Your task to perform on an android device: Is it going to rain this weekend? Image 0: 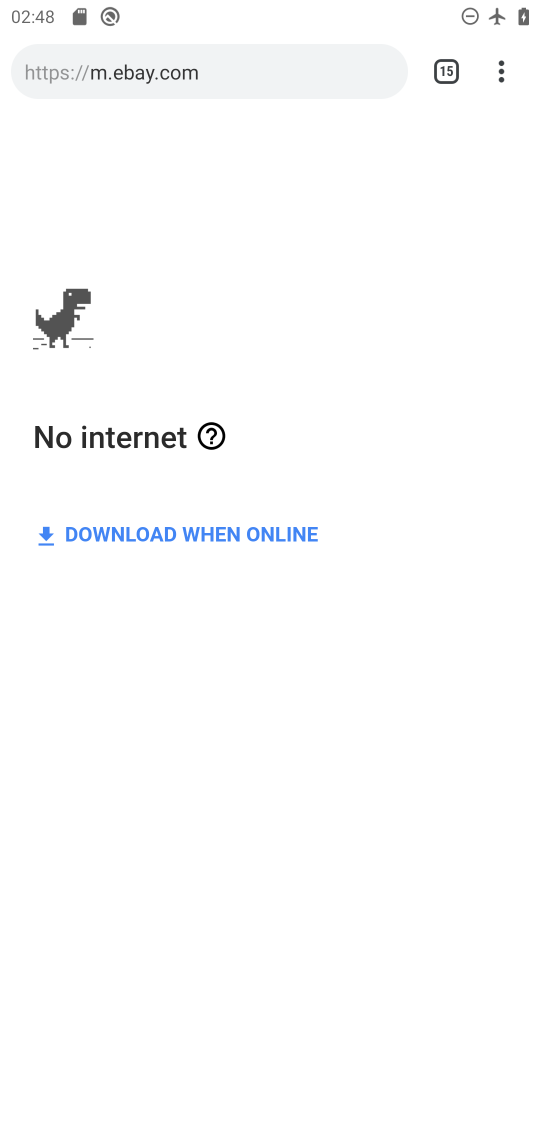
Step 0: press back button
Your task to perform on an android device: Is it going to rain this weekend? Image 1: 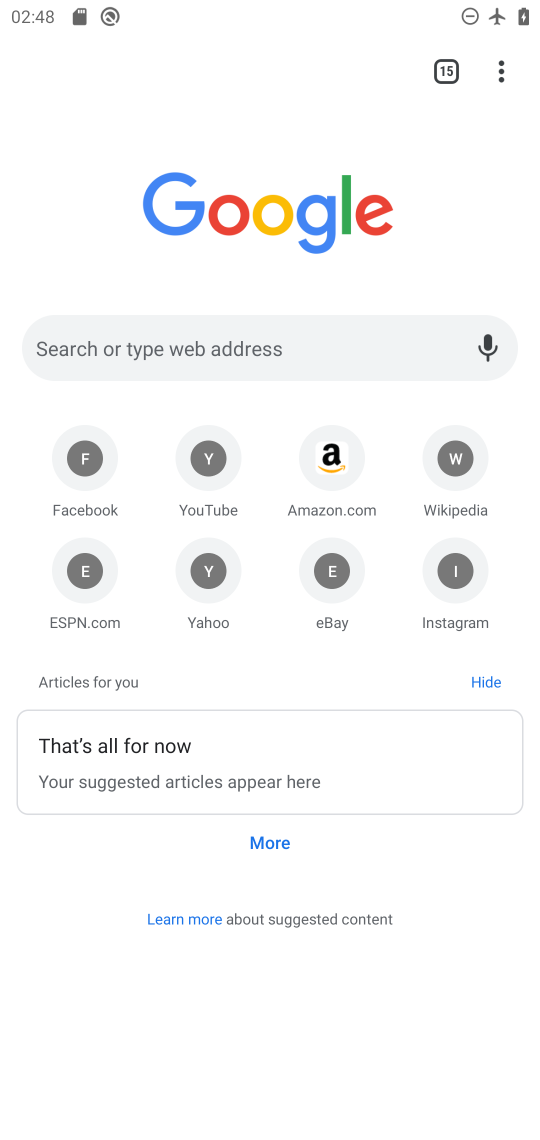
Step 1: press home button
Your task to perform on an android device: Is it going to rain this weekend? Image 2: 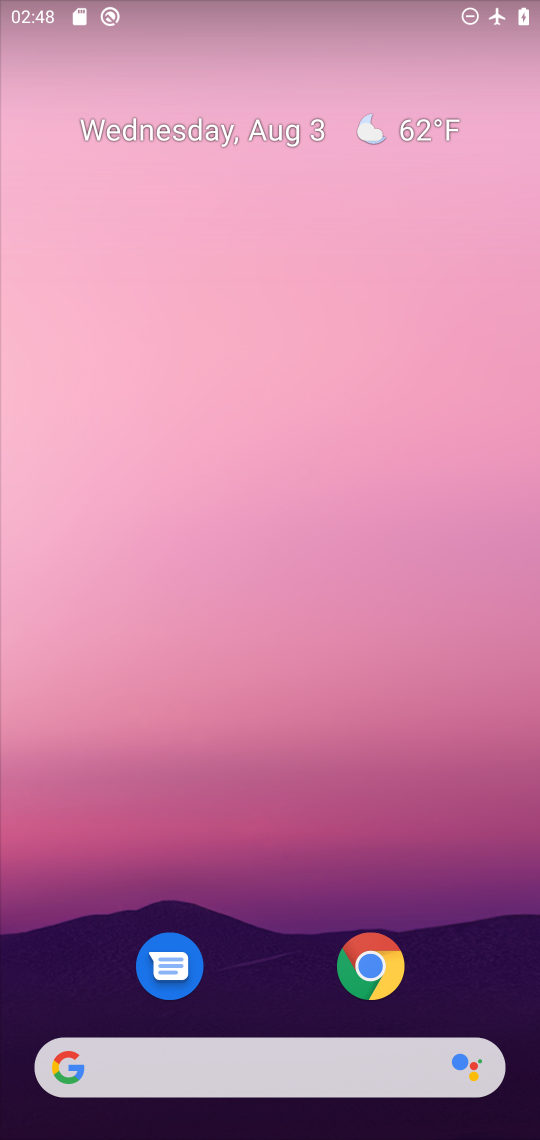
Step 2: drag from (250, 965) to (271, 308)
Your task to perform on an android device: Is it going to rain this weekend? Image 3: 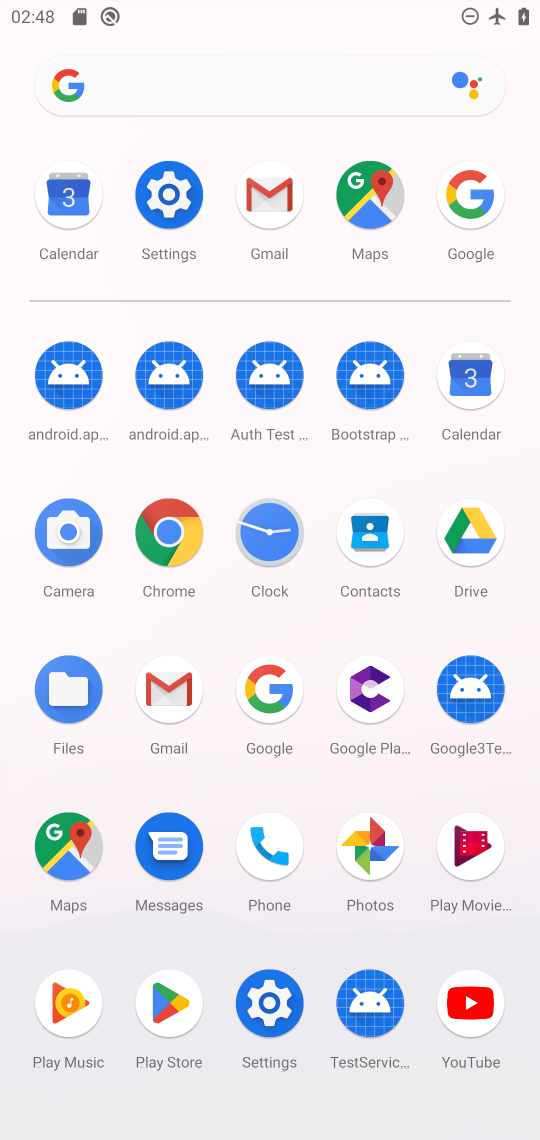
Step 3: click (459, 227)
Your task to perform on an android device: Is it going to rain this weekend? Image 4: 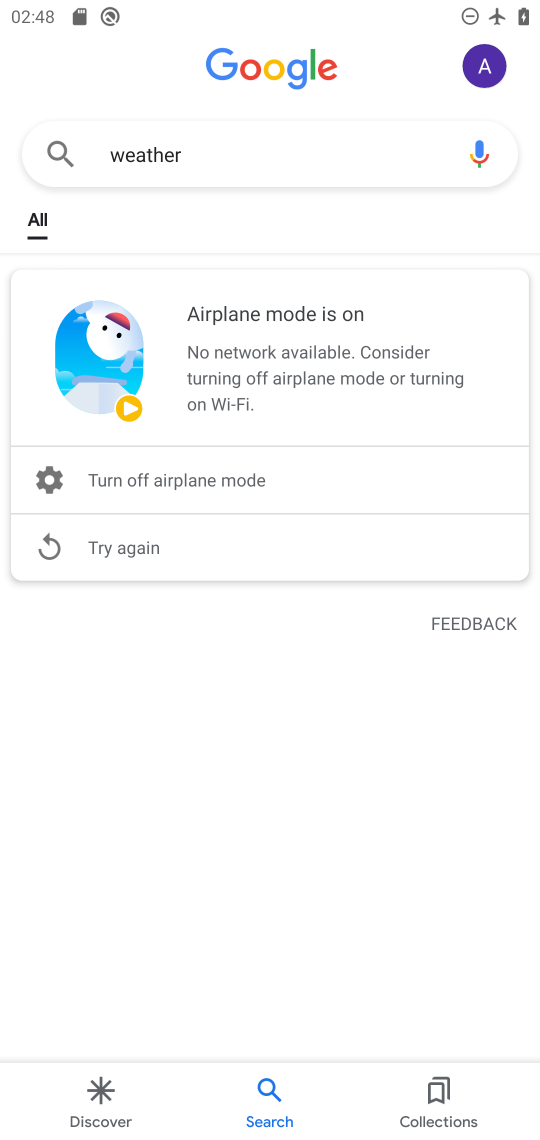
Step 4: task complete